Your task to perform on an android device: check out phone information Image 0: 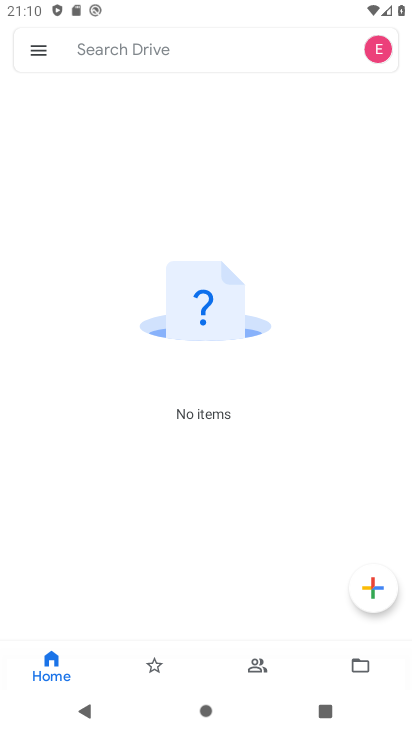
Step 0: press home button
Your task to perform on an android device: check out phone information Image 1: 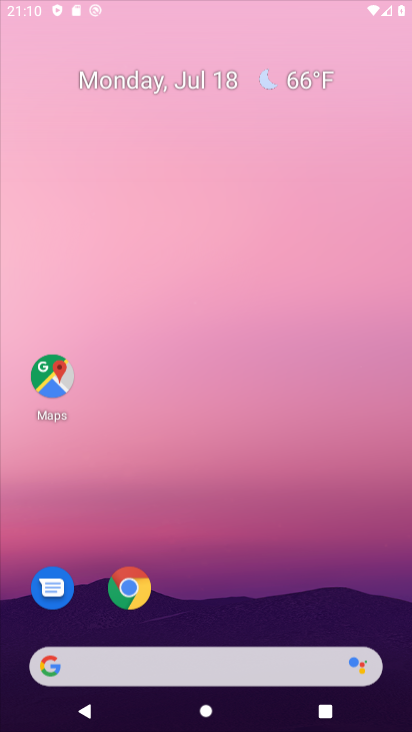
Step 1: drag from (287, 639) to (245, 128)
Your task to perform on an android device: check out phone information Image 2: 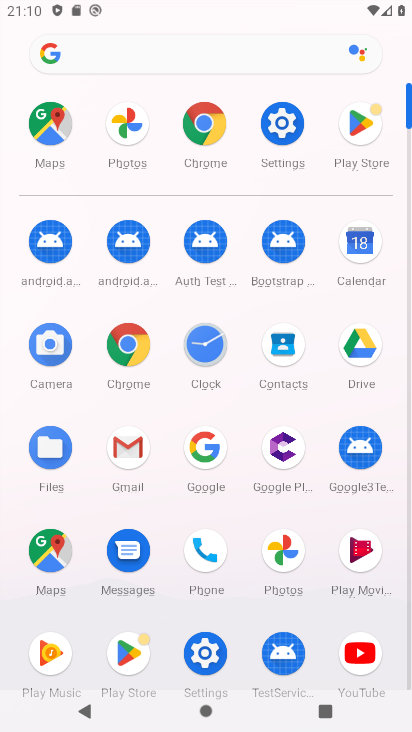
Step 2: click (213, 566)
Your task to perform on an android device: check out phone information Image 3: 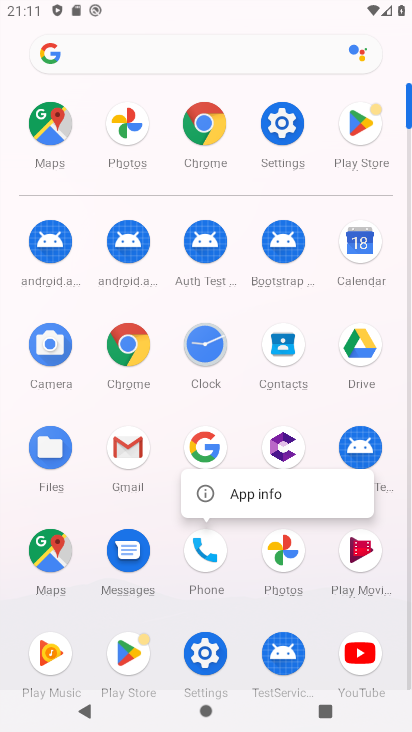
Step 3: click (237, 498)
Your task to perform on an android device: check out phone information Image 4: 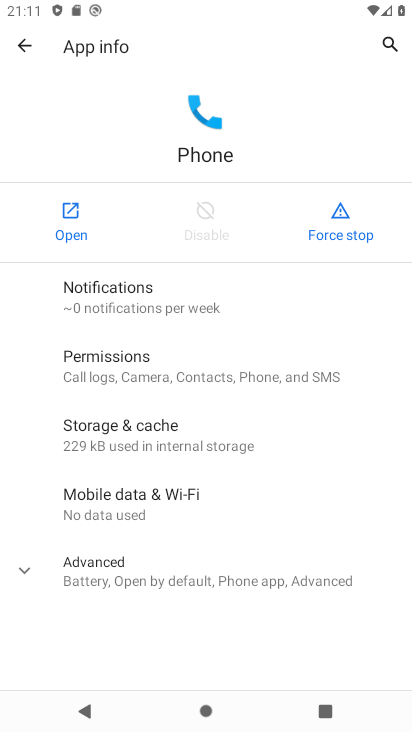
Step 4: task complete